Your task to perform on an android device: Open Google Image 0: 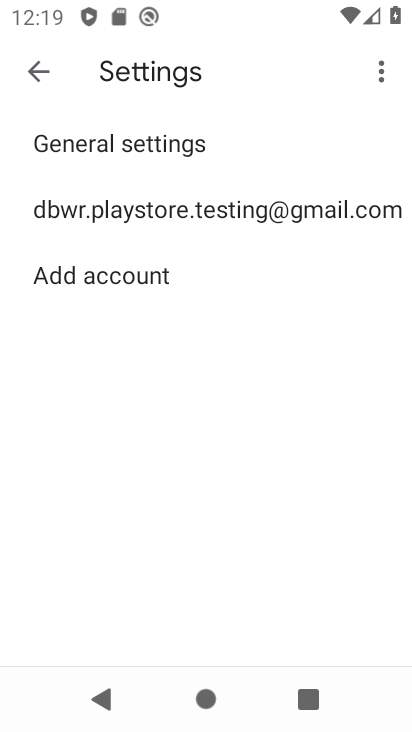
Step 0: press home button
Your task to perform on an android device: Open Google Image 1: 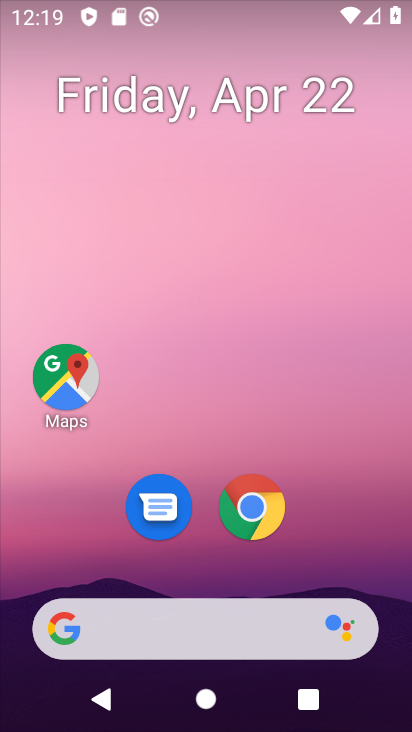
Step 1: drag from (331, 460) to (338, 65)
Your task to perform on an android device: Open Google Image 2: 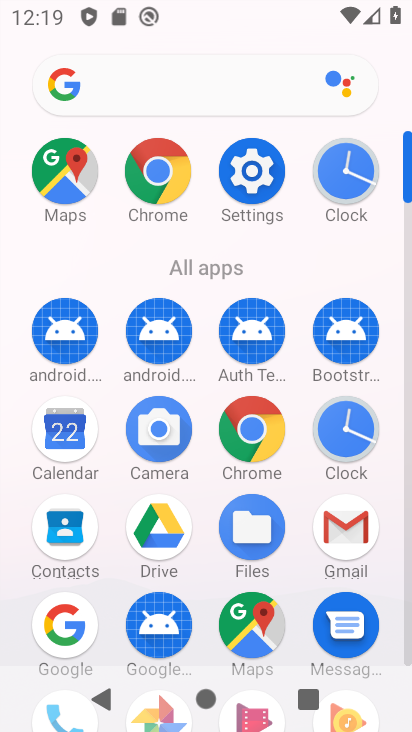
Step 2: click (76, 623)
Your task to perform on an android device: Open Google Image 3: 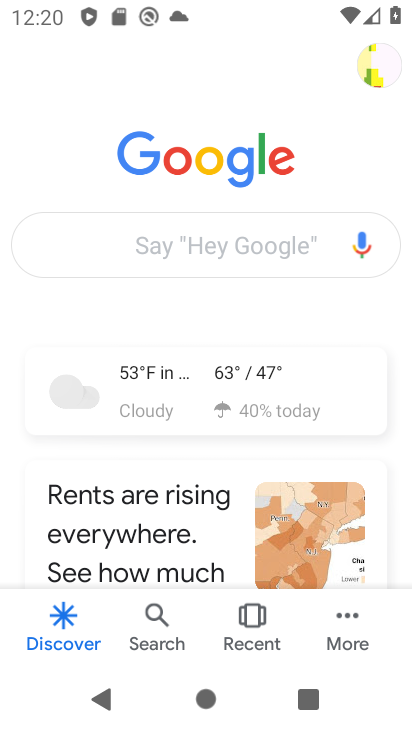
Step 3: task complete